Your task to perform on an android device: turn pop-ups on in chrome Image 0: 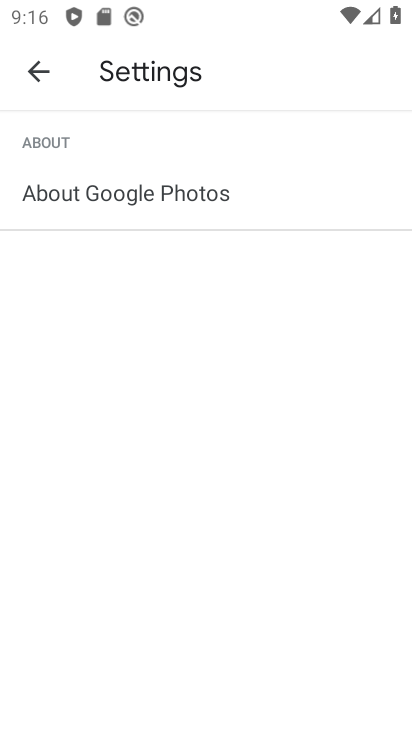
Step 0: press home button
Your task to perform on an android device: turn pop-ups on in chrome Image 1: 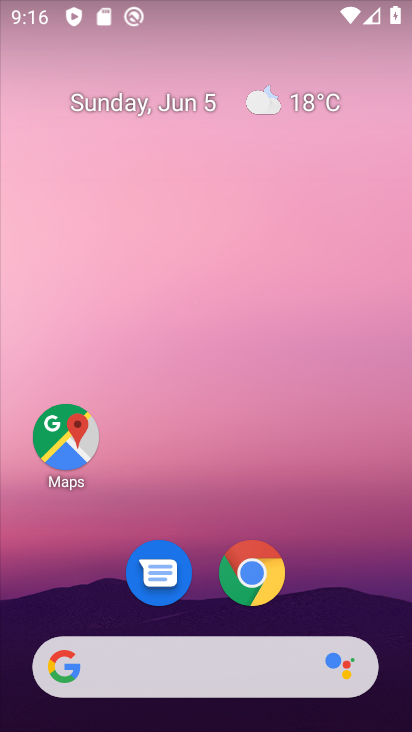
Step 1: click (257, 572)
Your task to perform on an android device: turn pop-ups on in chrome Image 2: 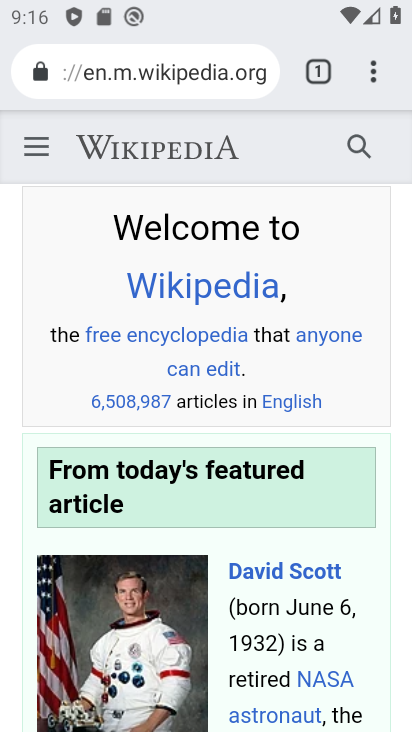
Step 2: click (370, 80)
Your task to perform on an android device: turn pop-ups on in chrome Image 3: 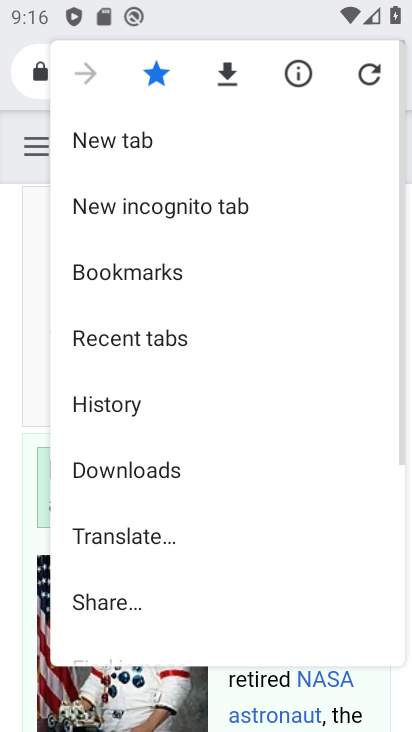
Step 3: drag from (148, 593) to (143, 223)
Your task to perform on an android device: turn pop-ups on in chrome Image 4: 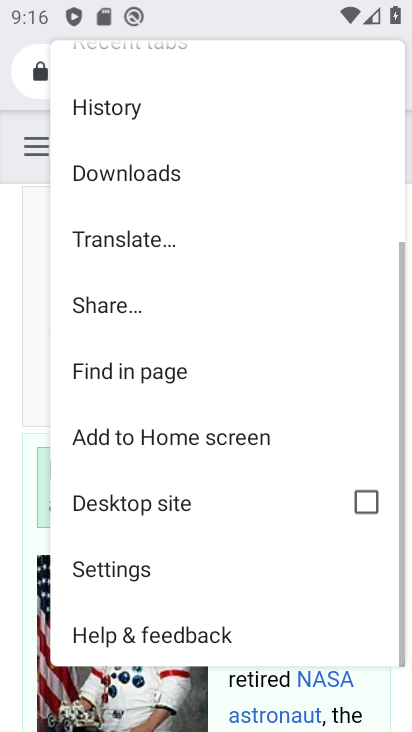
Step 4: click (126, 570)
Your task to perform on an android device: turn pop-ups on in chrome Image 5: 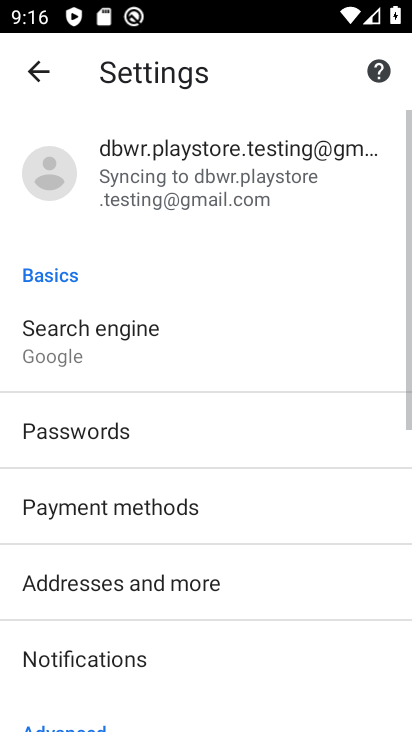
Step 5: drag from (125, 698) to (122, 301)
Your task to perform on an android device: turn pop-ups on in chrome Image 6: 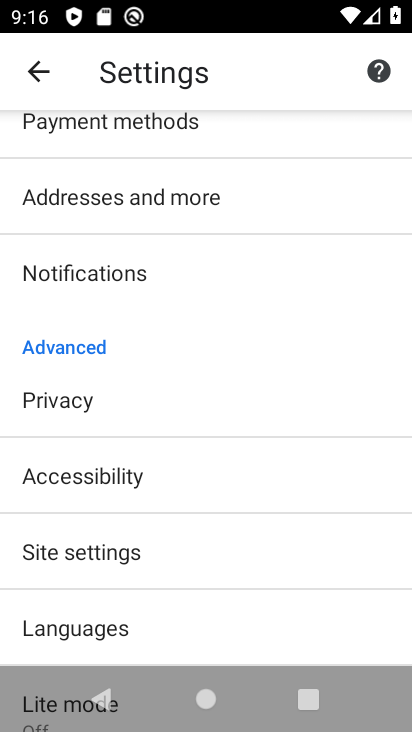
Step 6: click (87, 552)
Your task to perform on an android device: turn pop-ups on in chrome Image 7: 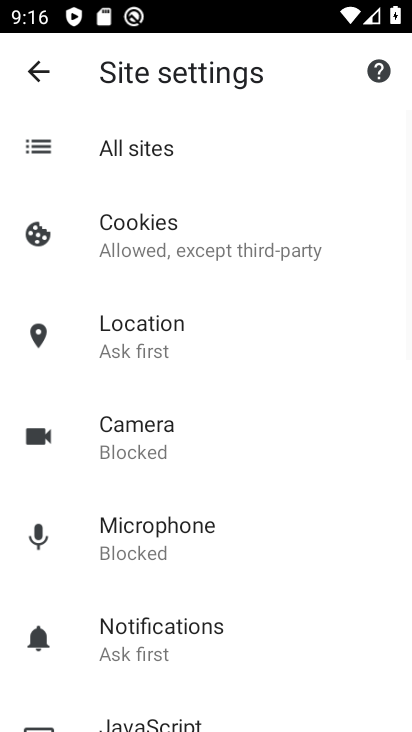
Step 7: drag from (180, 686) to (187, 262)
Your task to perform on an android device: turn pop-ups on in chrome Image 8: 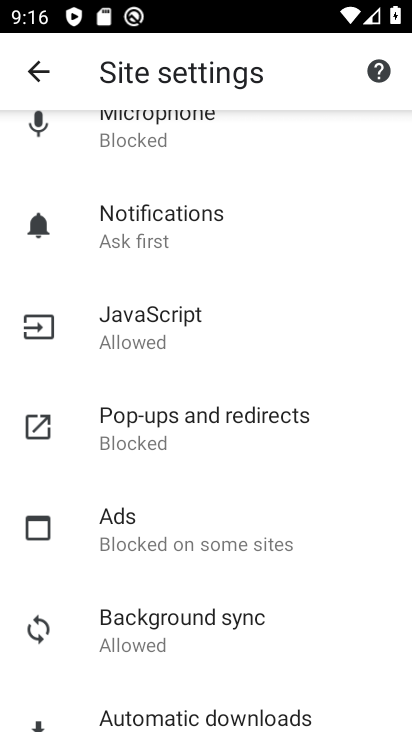
Step 8: click (152, 436)
Your task to perform on an android device: turn pop-ups on in chrome Image 9: 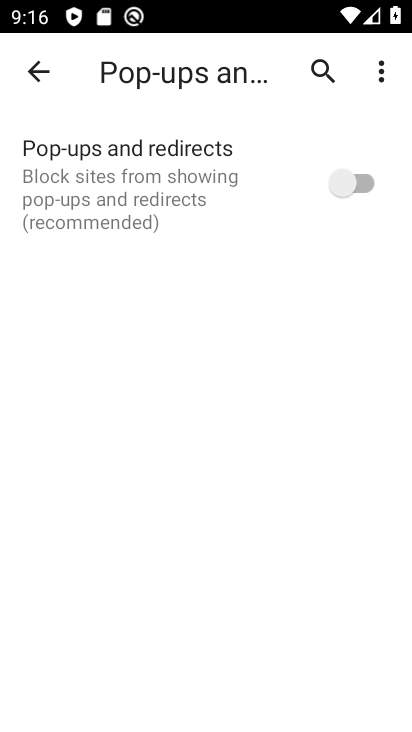
Step 9: click (364, 182)
Your task to perform on an android device: turn pop-ups on in chrome Image 10: 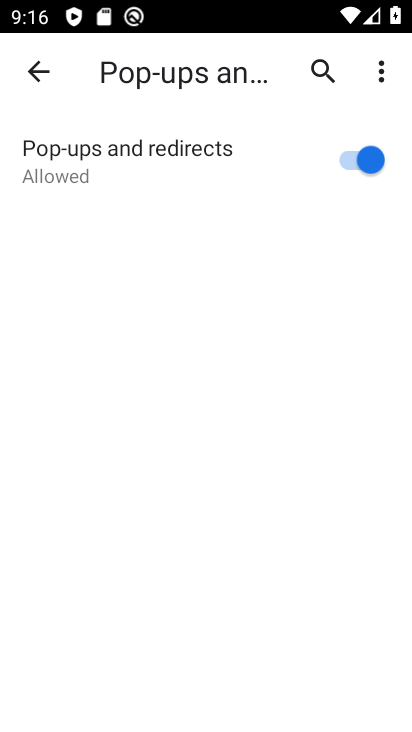
Step 10: task complete